Your task to perform on an android device: delete browsing data in the chrome app Image 0: 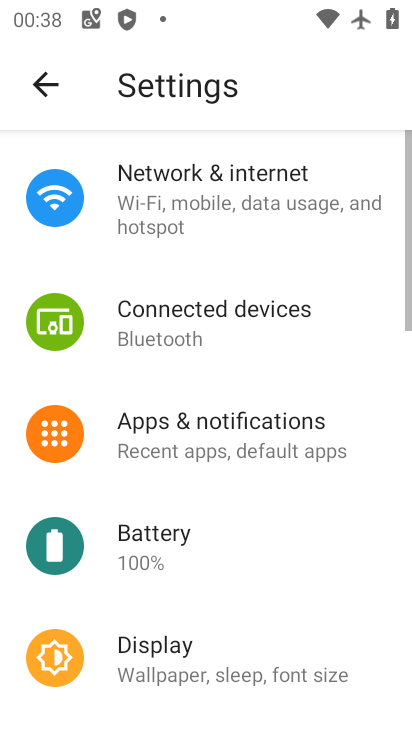
Step 0: press home button
Your task to perform on an android device: delete browsing data in the chrome app Image 1: 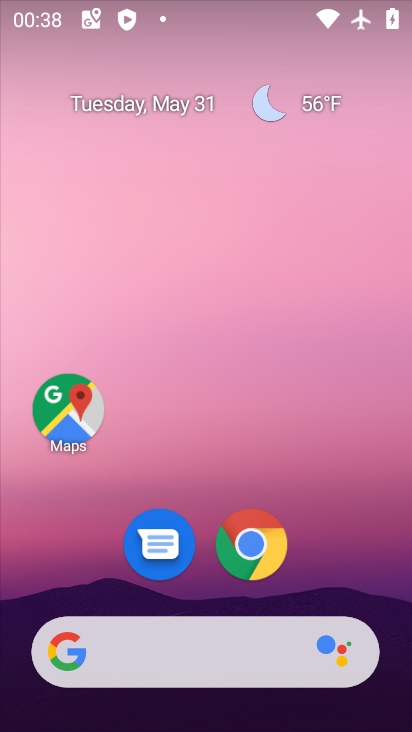
Step 1: click (246, 551)
Your task to perform on an android device: delete browsing data in the chrome app Image 2: 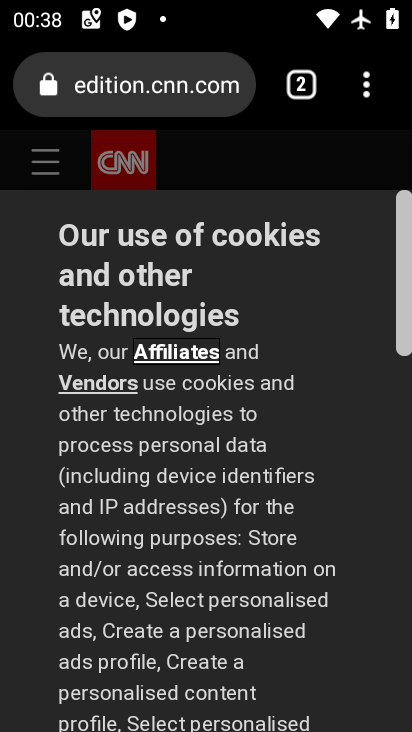
Step 2: click (370, 85)
Your task to perform on an android device: delete browsing data in the chrome app Image 3: 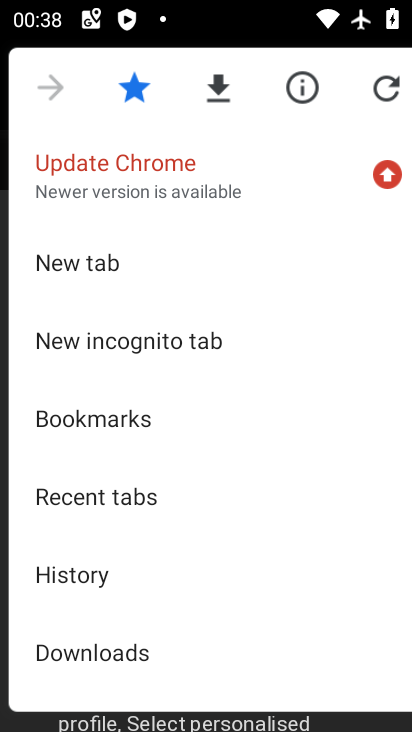
Step 3: click (82, 574)
Your task to perform on an android device: delete browsing data in the chrome app Image 4: 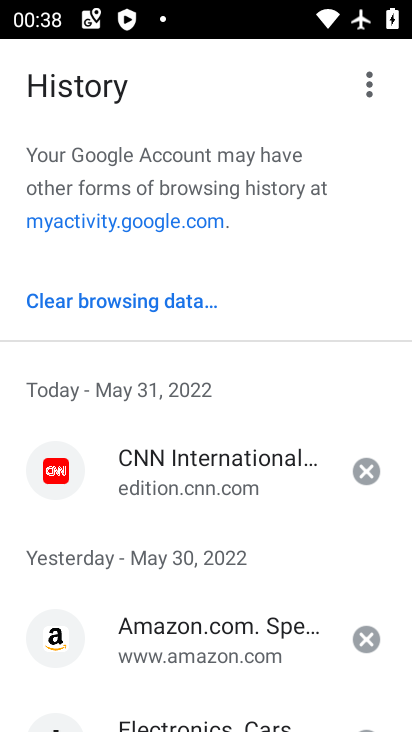
Step 4: drag from (261, 537) to (248, 324)
Your task to perform on an android device: delete browsing data in the chrome app Image 5: 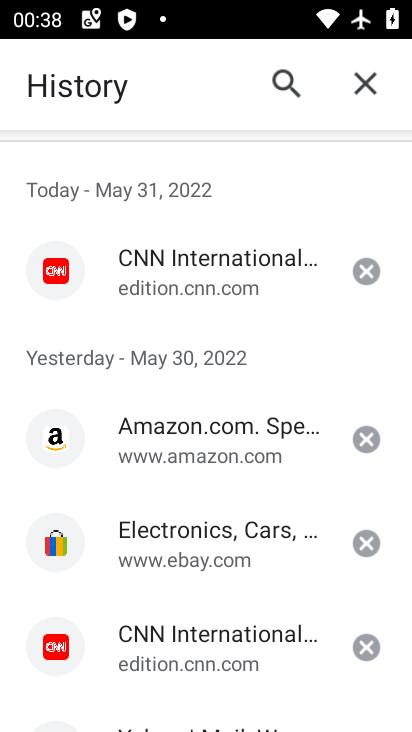
Step 5: drag from (240, 308) to (308, 706)
Your task to perform on an android device: delete browsing data in the chrome app Image 6: 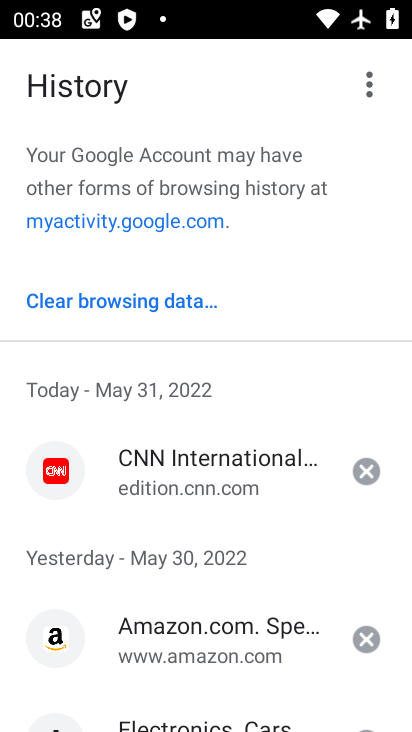
Step 6: click (123, 300)
Your task to perform on an android device: delete browsing data in the chrome app Image 7: 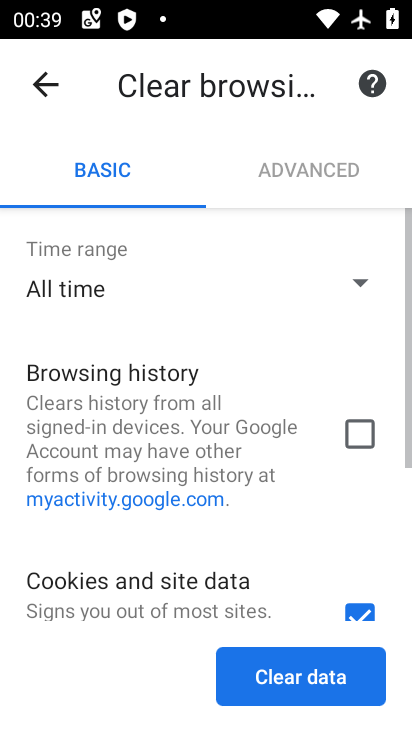
Step 7: click (364, 429)
Your task to perform on an android device: delete browsing data in the chrome app Image 8: 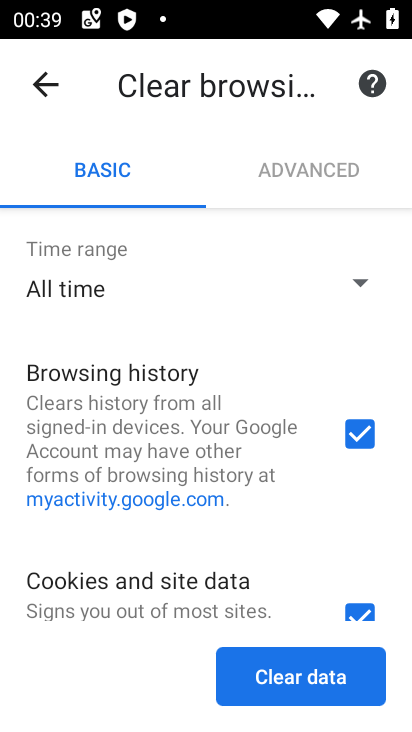
Step 8: click (295, 672)
Your task to perform on an android device: delete browsing data in the chrome app Image 9: 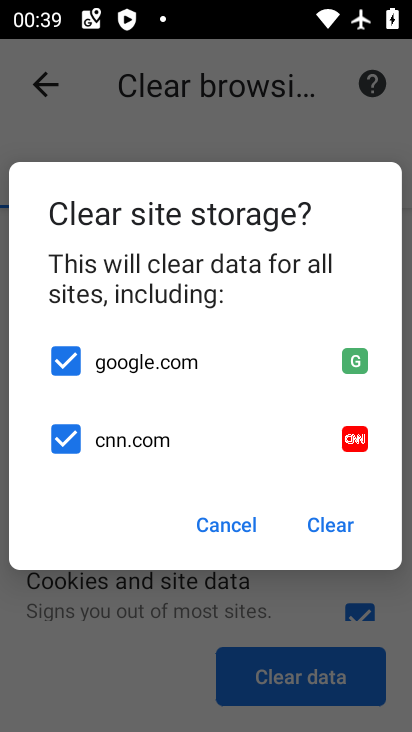
Step 9: click (329, 525)
Your task to perform on an android device: delete browsing data in the chrome app Image 10: 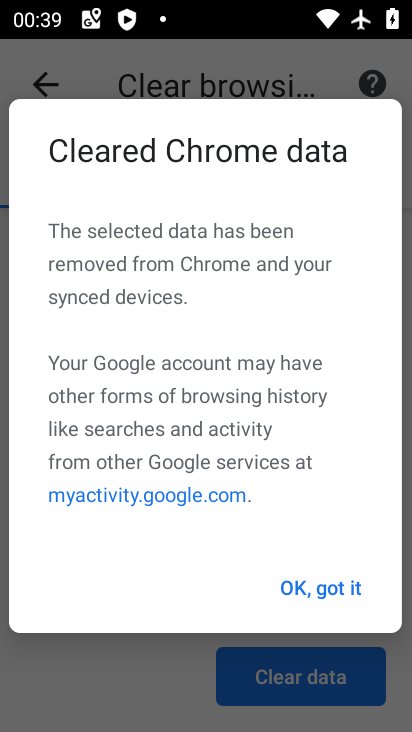
Step 10: click (303, 590)
Your task to perform on an android device: delete browsing data in the chrome app Image 11: 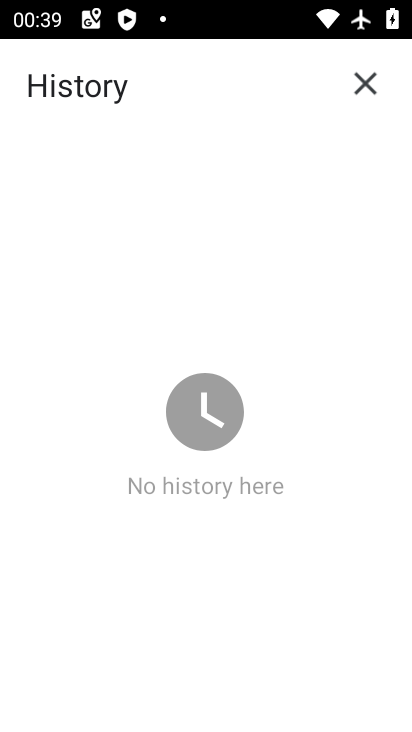
Step 11: task complete